Your task to perform on an android device: open app "Google Play services" Image 0: 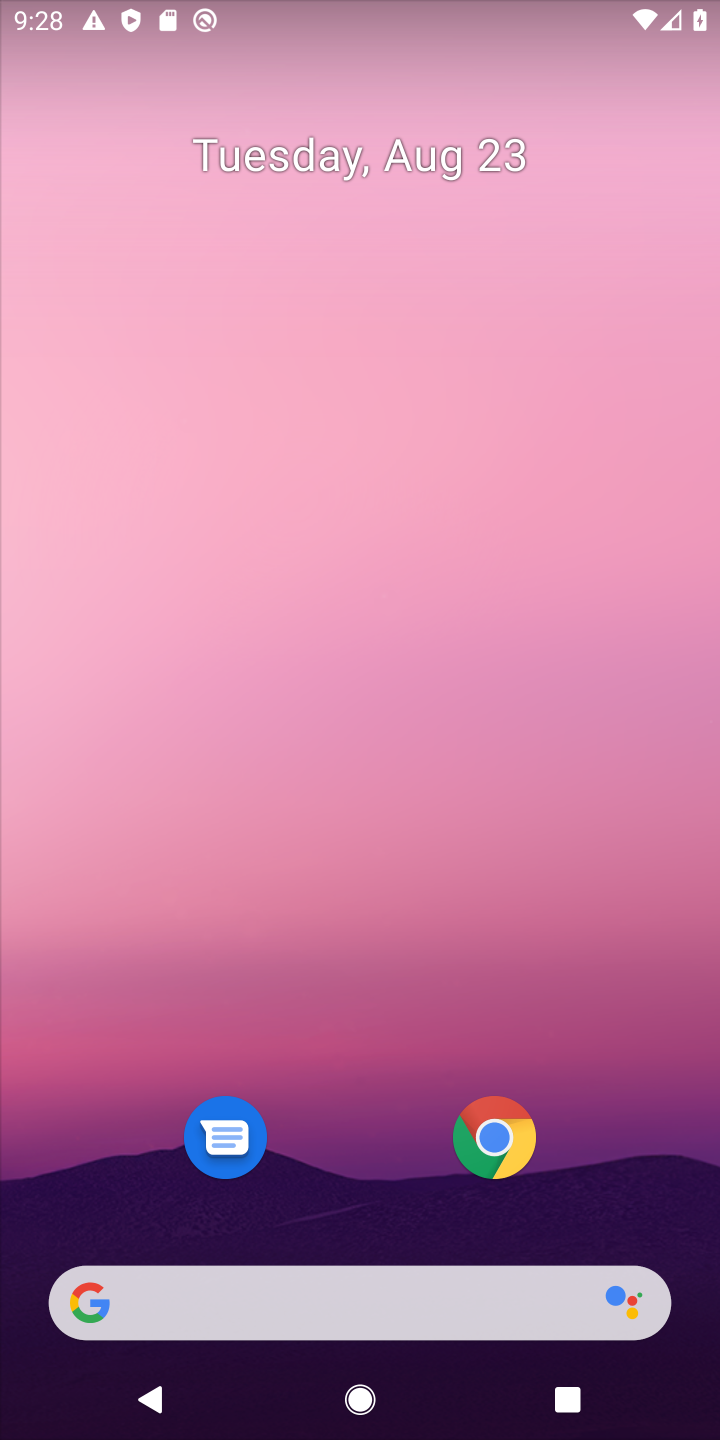
Step 0: press back button
Your task to perform on an android device: open app "Google Play services" Image 1: 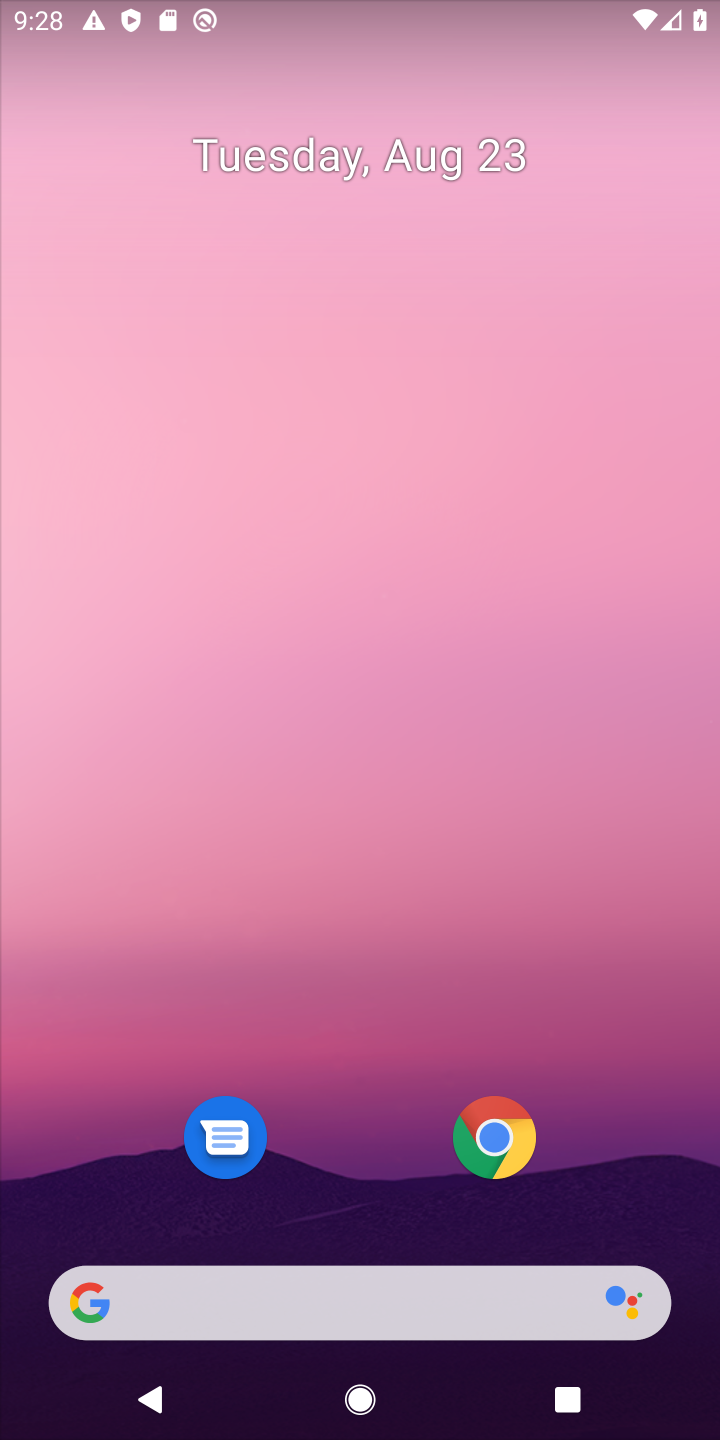
Step 1: press back button
Your task to perform on an android device: open app "Google Play services" Image 2: 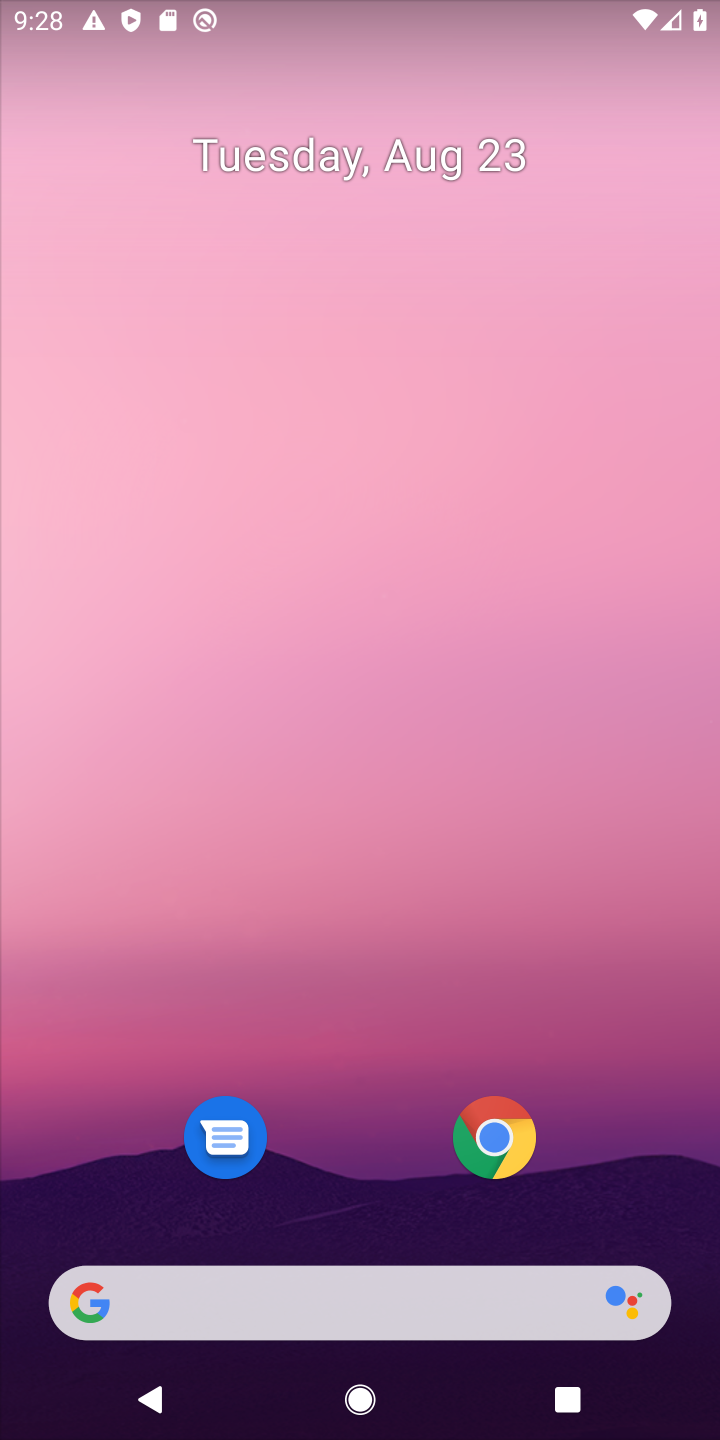
Step 2: drag from (452, 1236) to (390, 409)
Your task to perform on an android device: open app "Google Play services" Image 3: 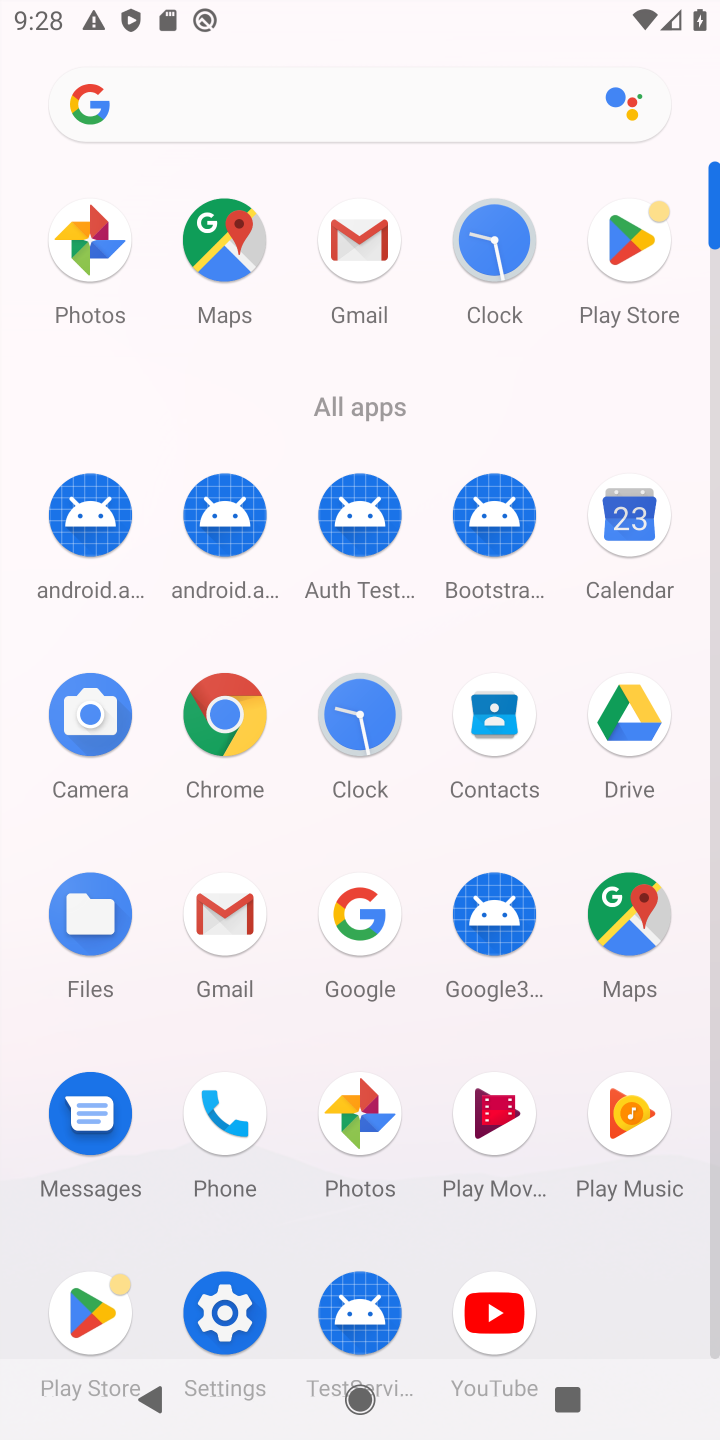
Step 3: click (73, 1310)
Your task to perform on an android device: open app "Google Play services" Image 4: 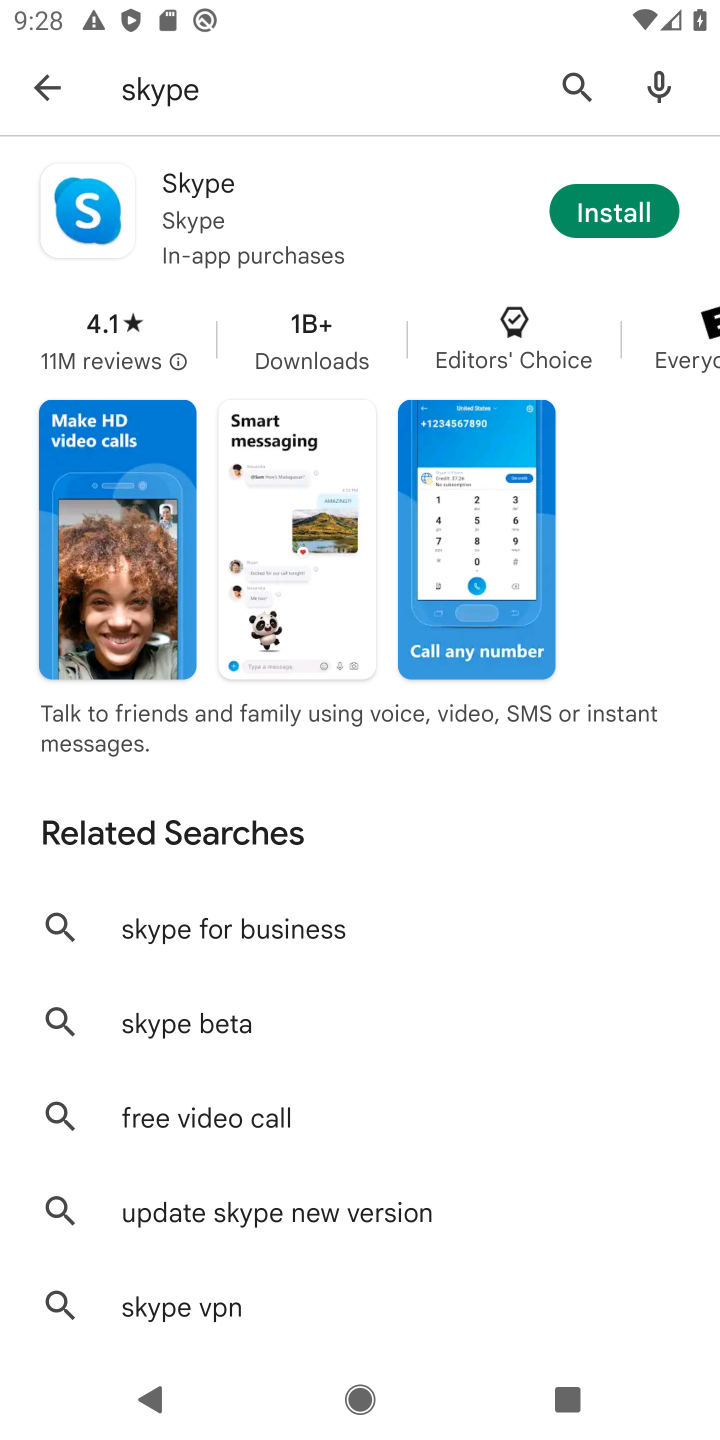
Step 4: click (116, 78)
Your task to perform on an android device: open app "Google Play services" Image 5: 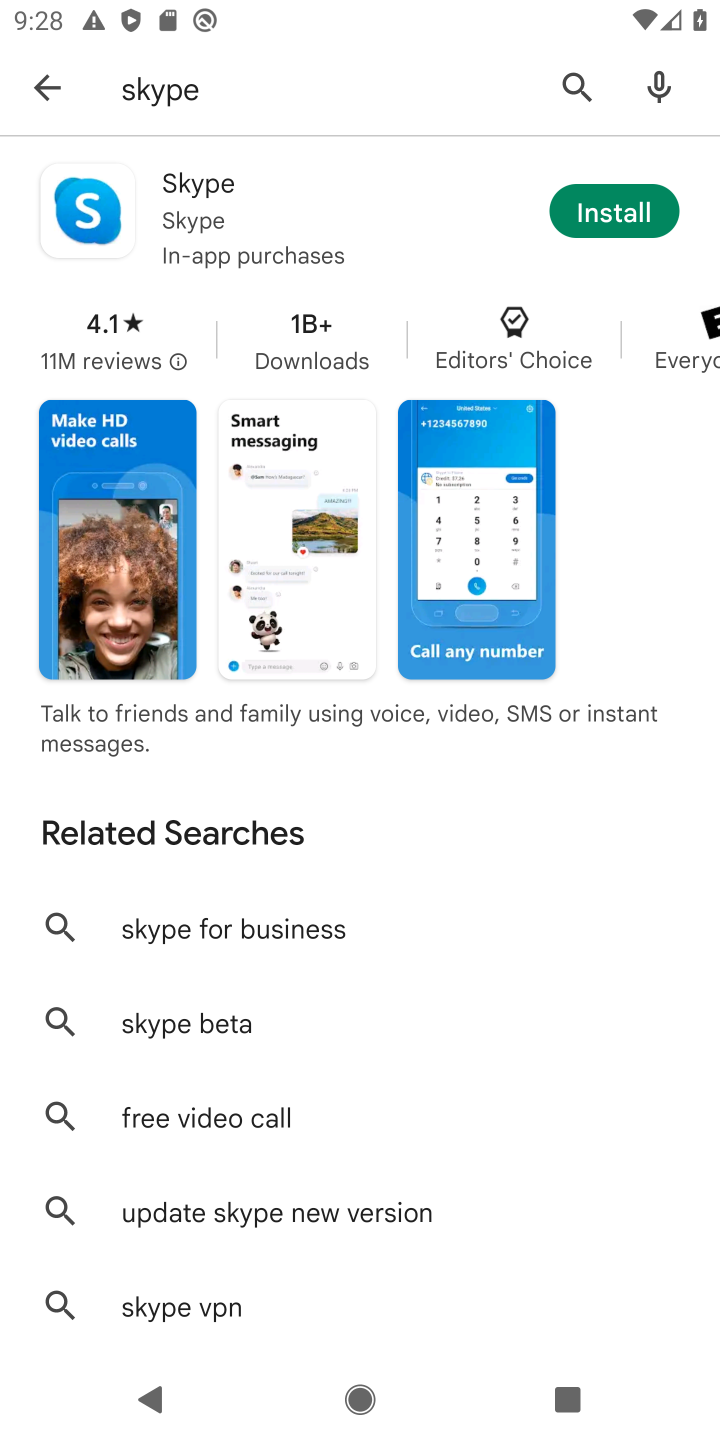
Step 5: click (48, 83)
Your task to perform on an android device: open app "Google Play services" Image 6: 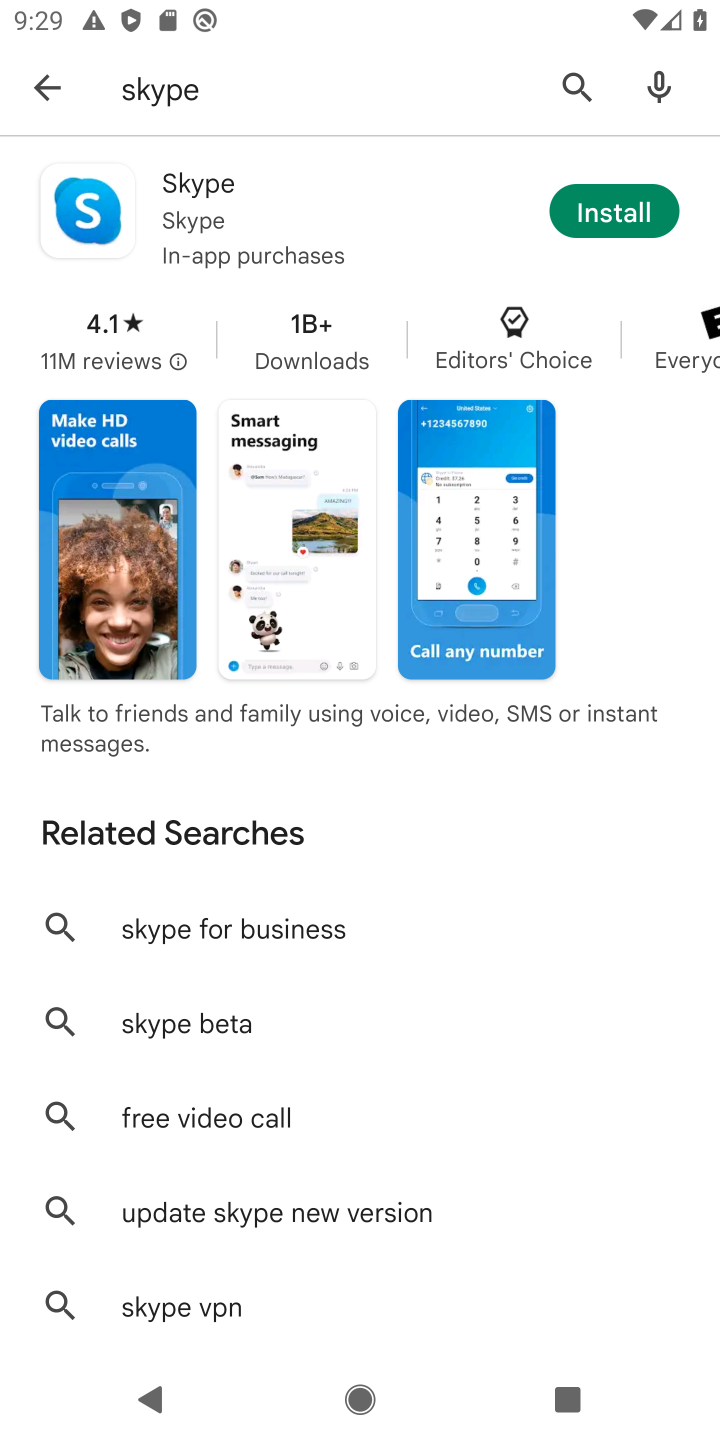
Step 6: click (48, 83)
Your task to perform on an android device: open app "Google Play services" Image 7: 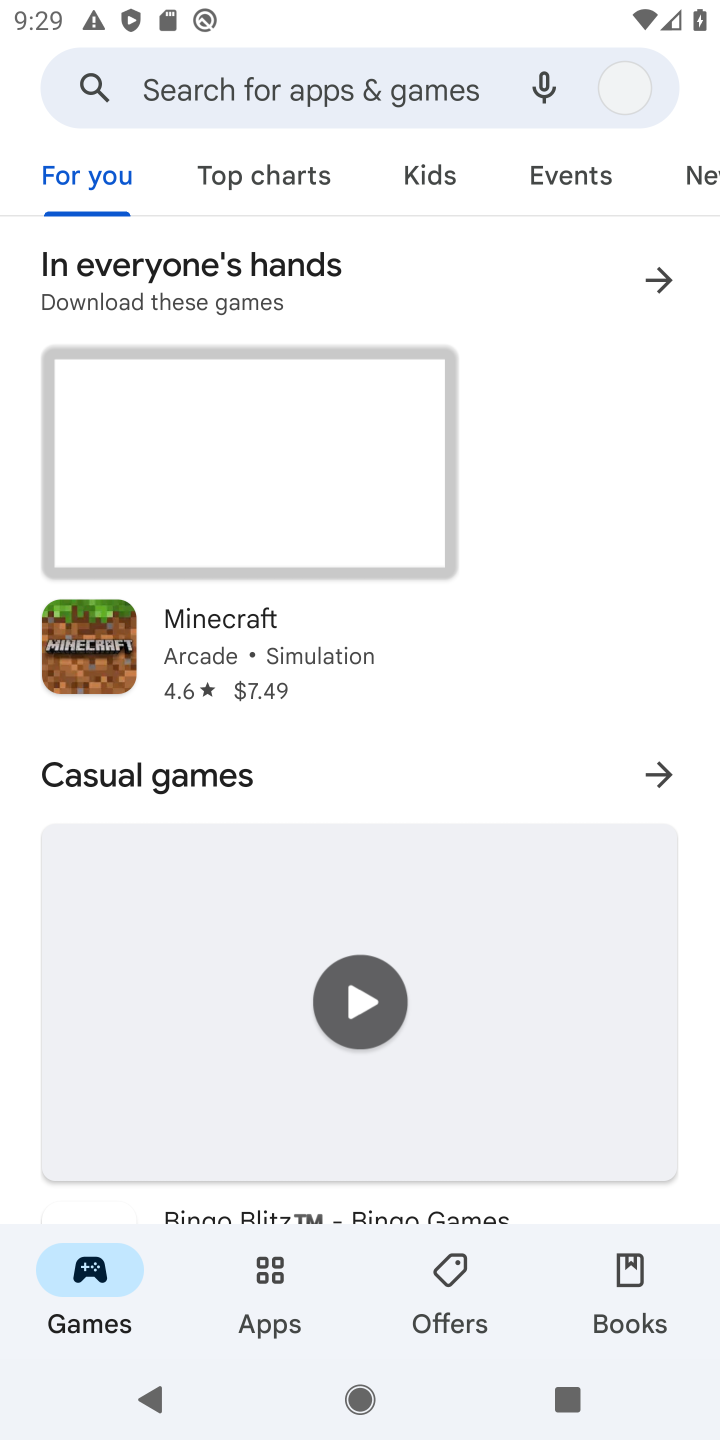
Step 7: click (573, 82)
Your task to perform on an android device: open app "Google Play services" Image 8: 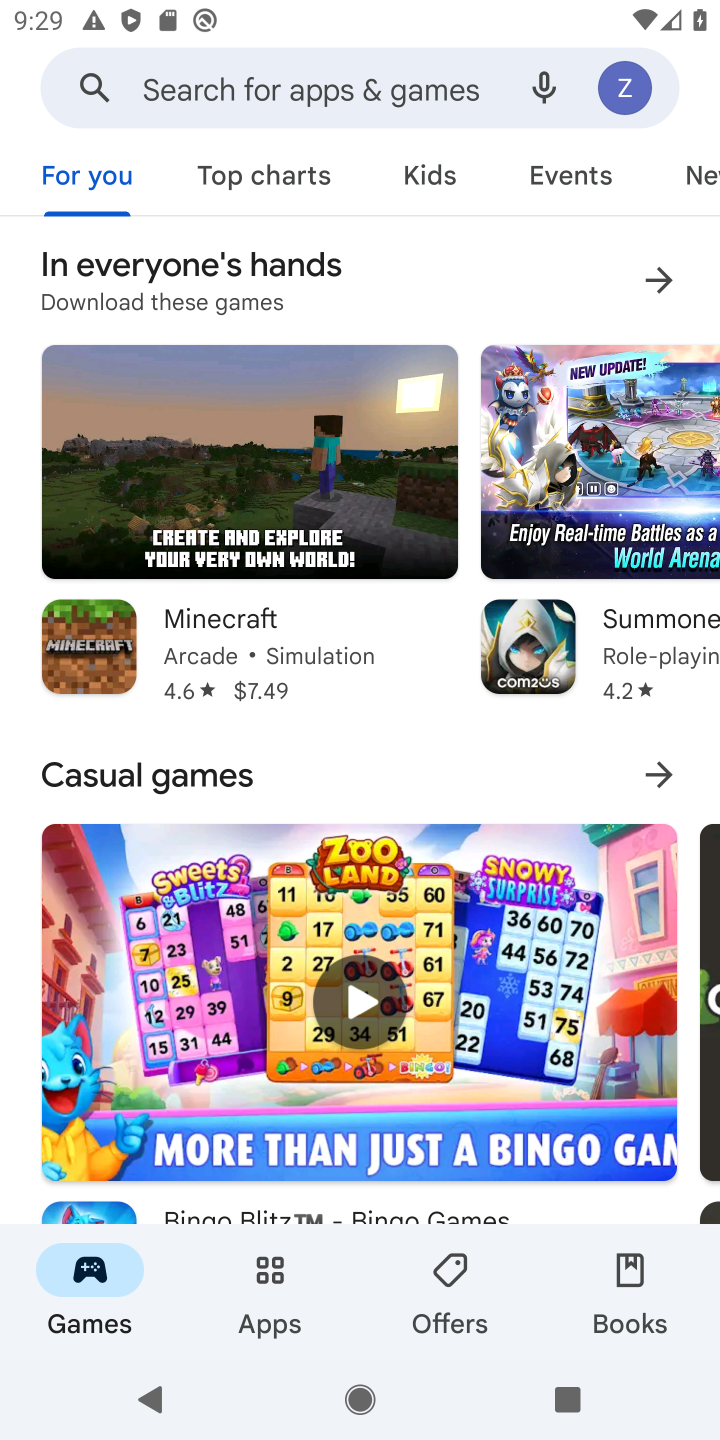
Step 8: click (396, 91)
Your task to perform on an android device: open app "Google Play services" Image 9: 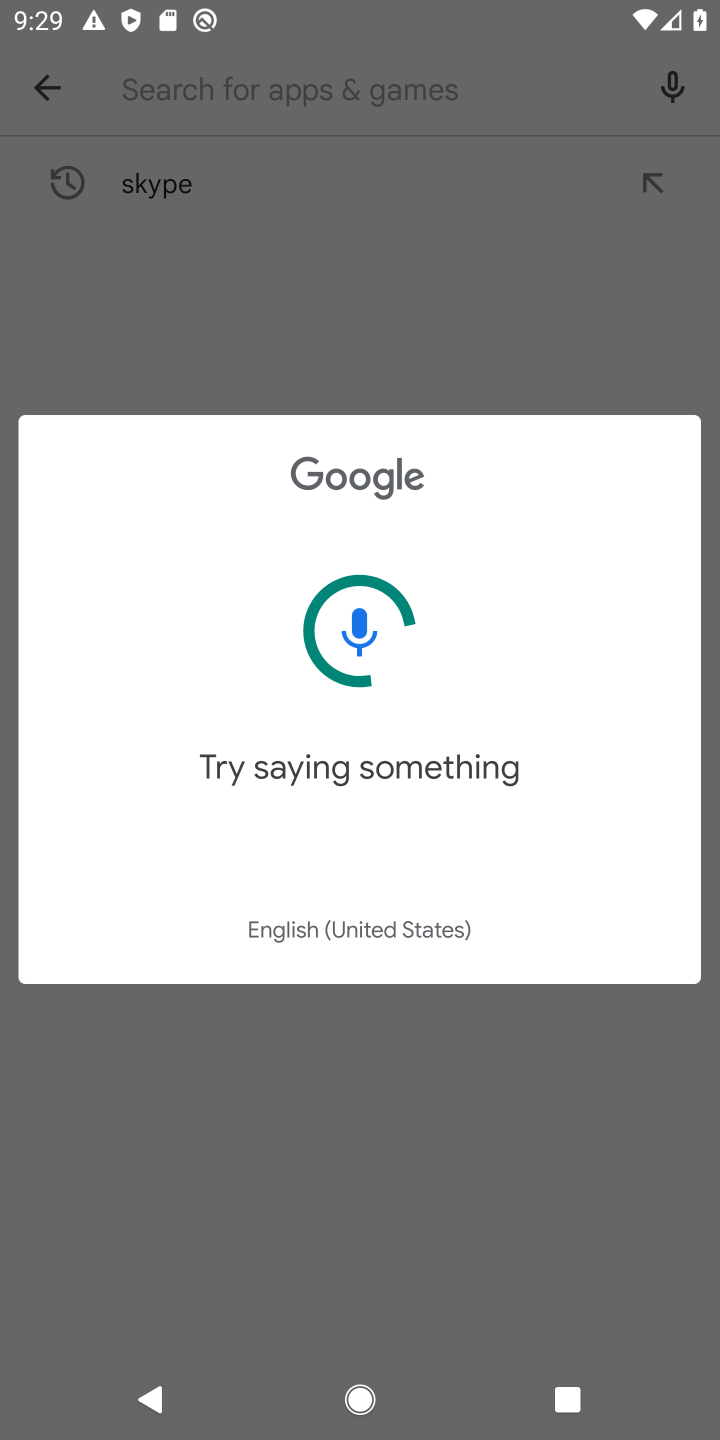
Step 9: click (420, 1044)
Your task to perform on an android device: open app "Google Play services" Image 10: 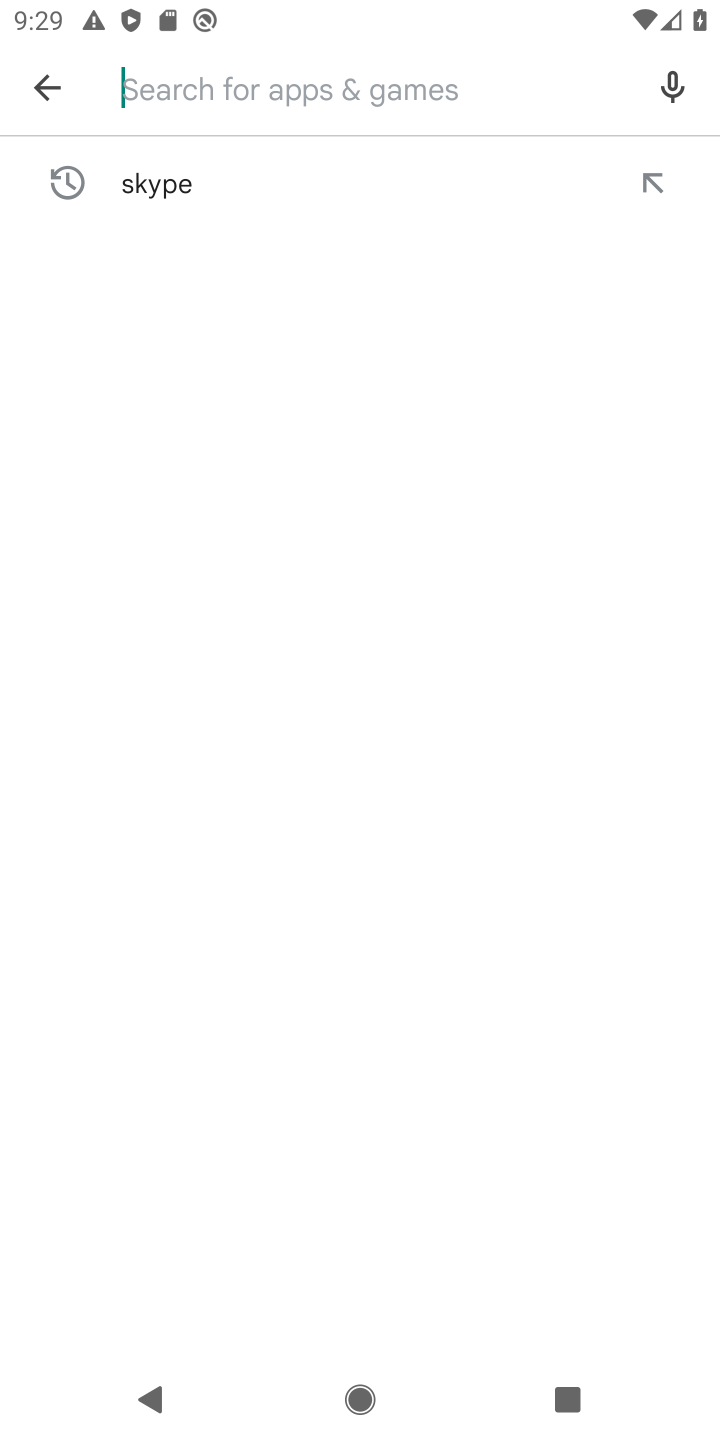
Step 10: type "Google Play services"
Your task to perform on an android device: open app "Google Play services" Image 11: 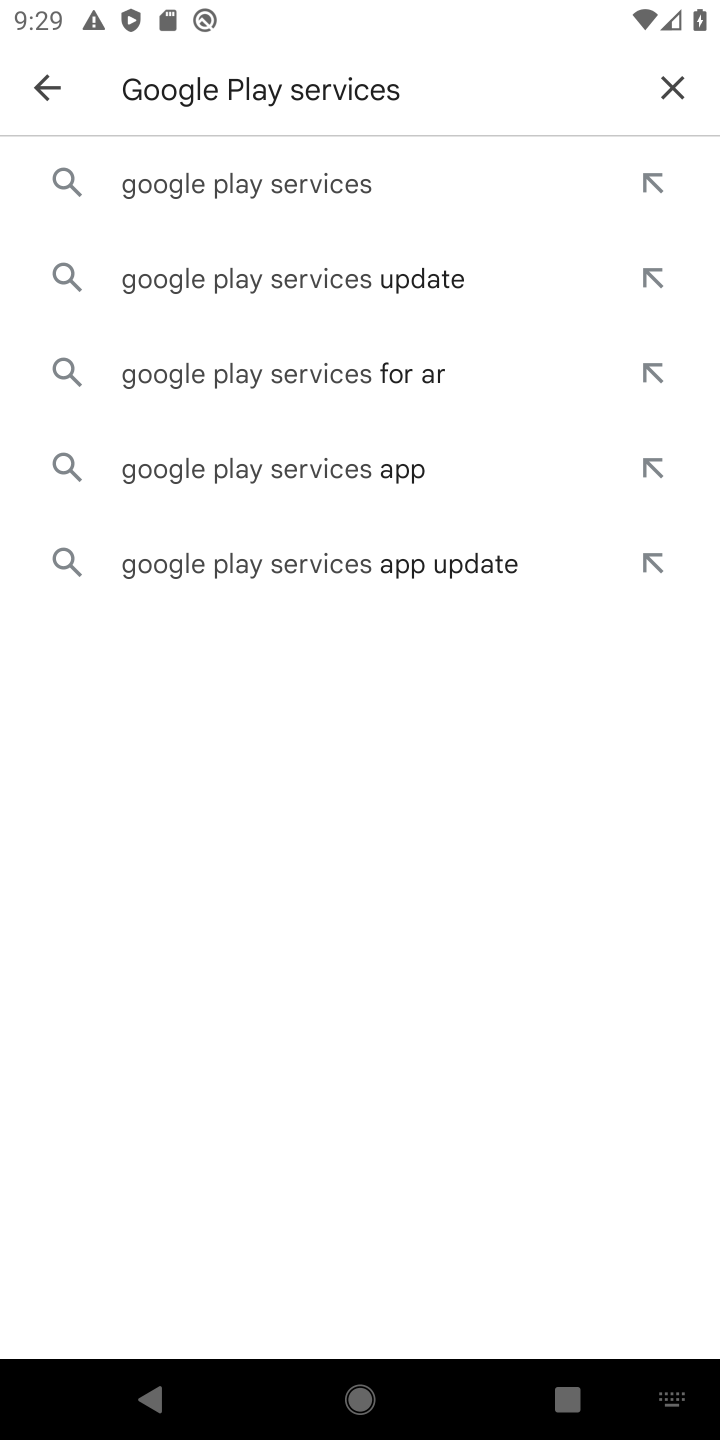
Step 11: click (230, 202)
Your task to perform on an android device: open app "Google Play services" Image 12: 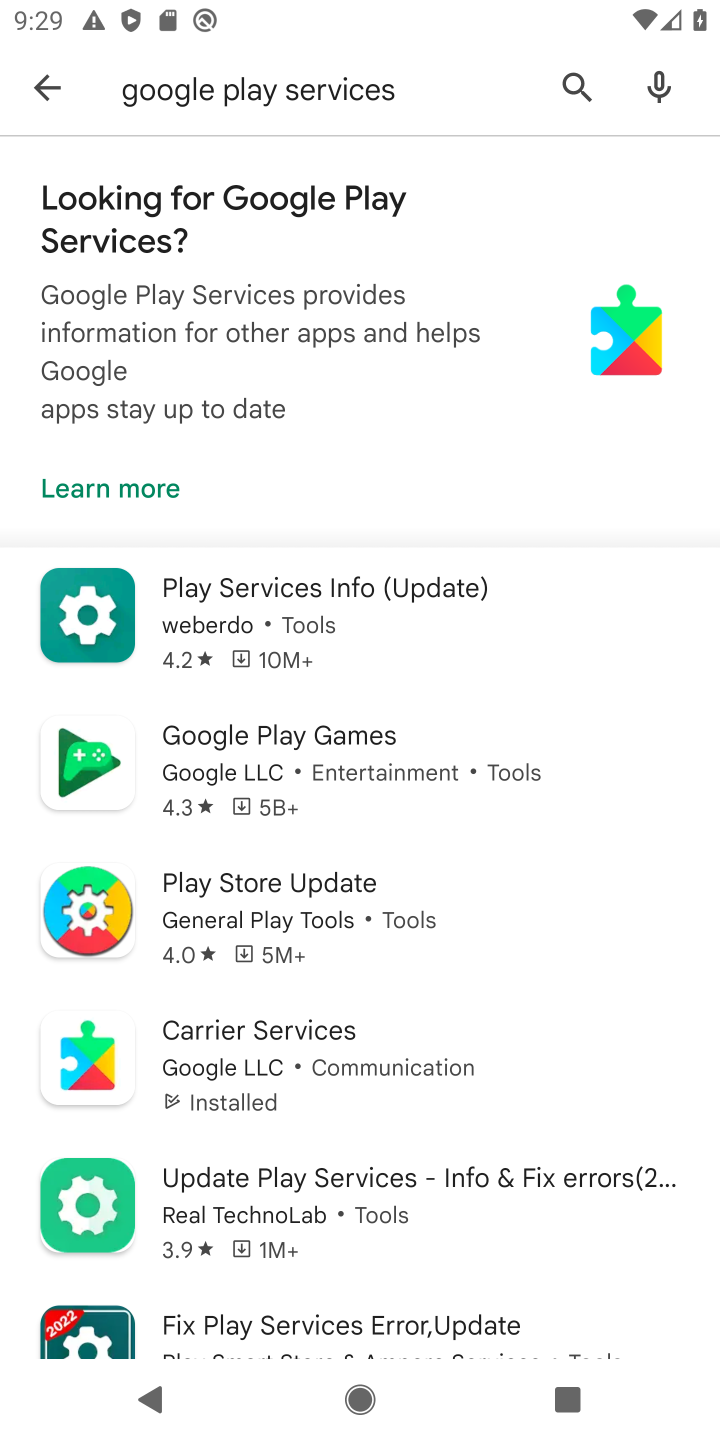
Step 12: task complete